Your task to perform on an android device: Check the news Image 0: 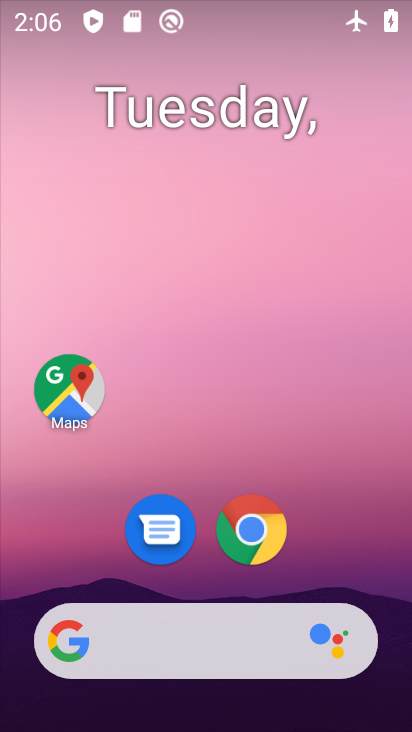
Step 0: click (264, 631)
Your task to perform on an android device: Check the news Image 1: 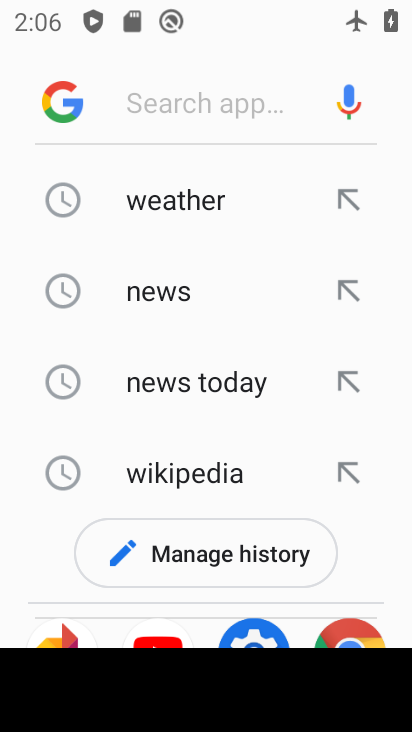
Step 1: click (180, 300)
Your task to perform on an android device: Check the news Image 2: 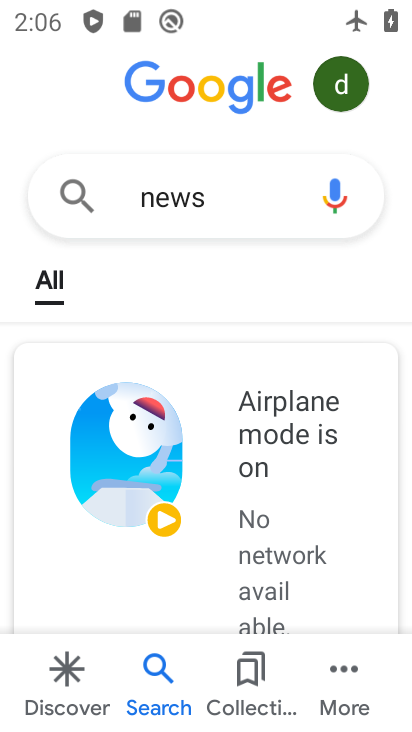
Step 2: task complete